Your task to perform on an android device: Do I have any events tomorrow? Image 0: 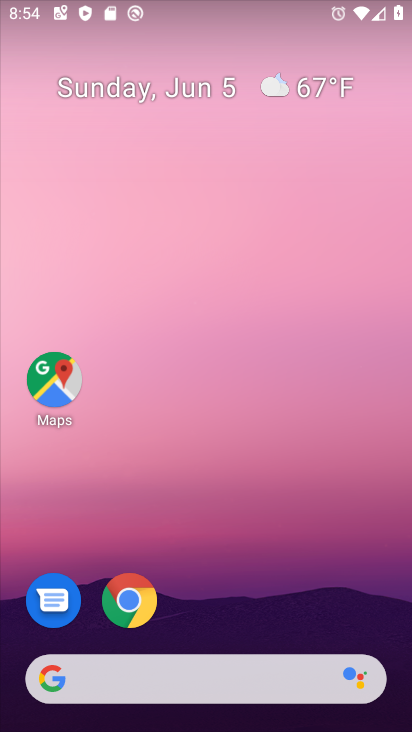
Step 0: drag from (393, 596) to (293, 8)
Your task to perform on an android device: Do I have any events tomorrow? Image 1: 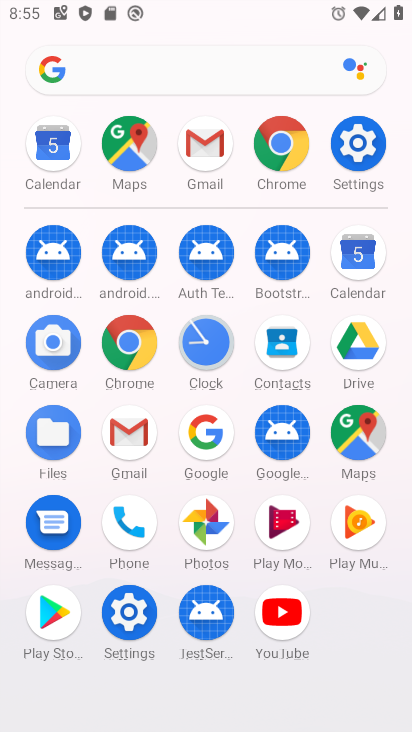
Step 1: click (348, 253)
Your task to perform on an android device: Do I have any events tomorrow? Image 2: 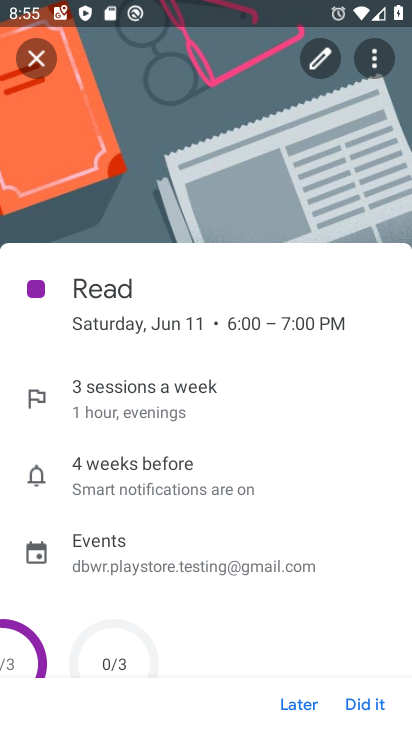
Step 2: press back button
Your task to perform on an android device: Do I have any events tomorrow? Image 3: 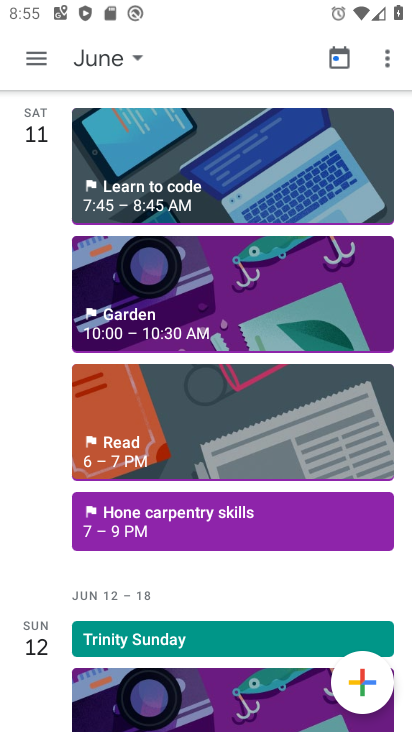
Step 3: click (99, 47)
Your task to perform on an android device: Do I have any events tomorrow? Image 4: 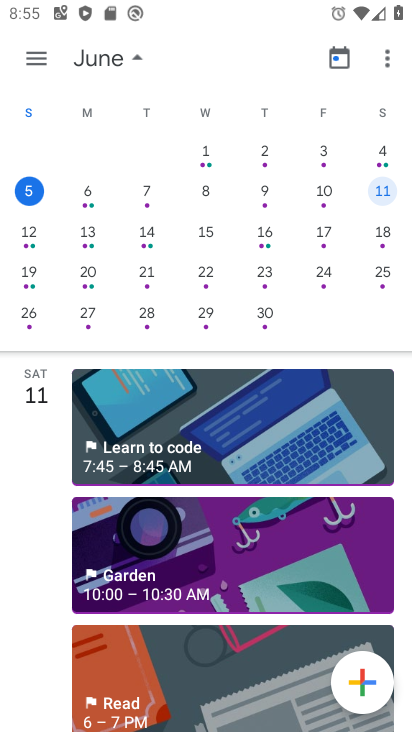
Step 4: click (143, 189)
Your task to perform on an android device: Do I have any events tomorrow? Image 5: 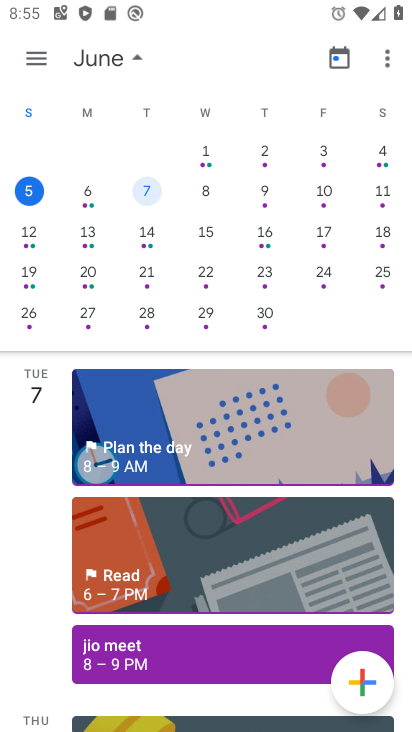
Step 5: click (198, 441)
Your task to perform on an android device: Do I have any events tomorrow? Image 6: 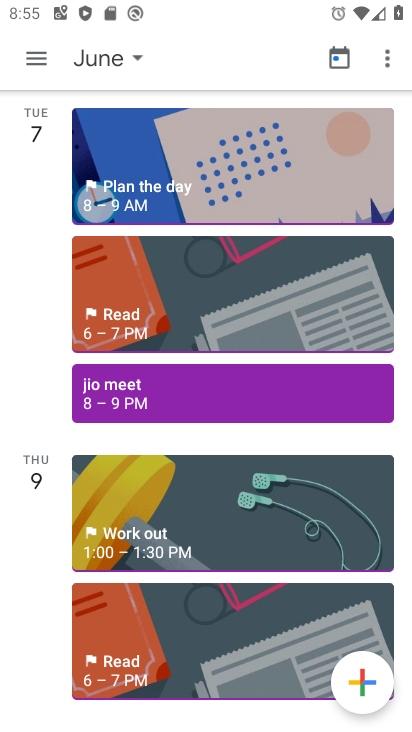
Step 6: click (233, 378)
Your task to perform on an android device: Do I have any events tomorrow? Image 7: 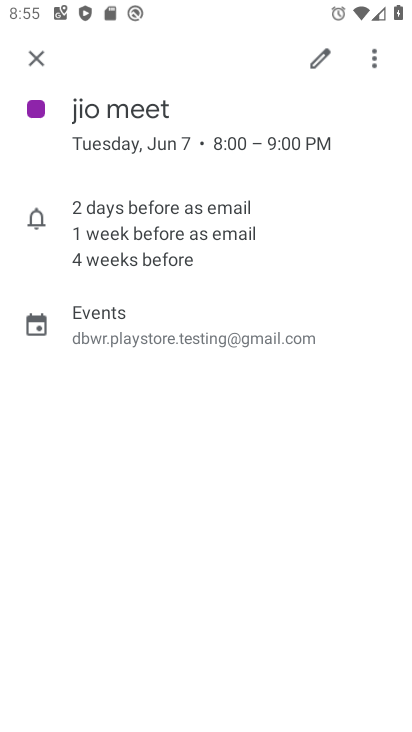
Step 7: task complete